Your task to perform on an android device: snooze an email in the gmail app Image 0: 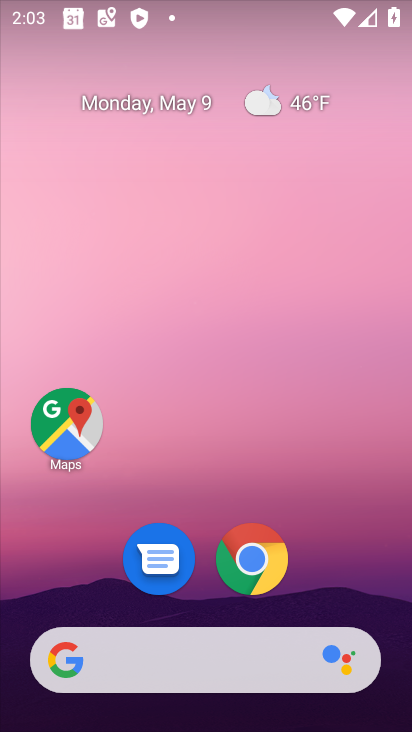
Step 0: drag from (384, 582) to (339, 179)
Your task to perform on an android device: snooze an email in the gmail app Image 1: 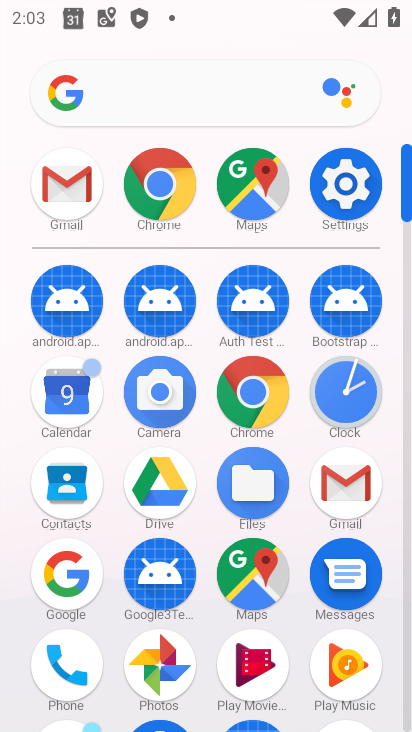
Step 1: click (363, 478)
Your task to perform on an android device: snooze an email in the gmail app Image 2: 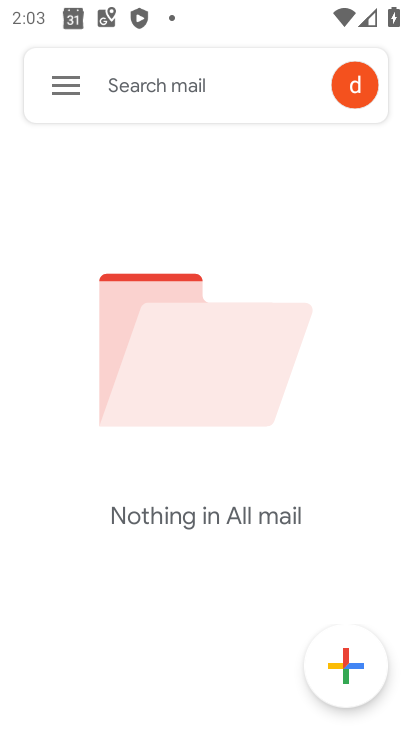
Step 2: click (72, 88)
Your task to perform on an android device: snooze an email in the gmail app Image 3: 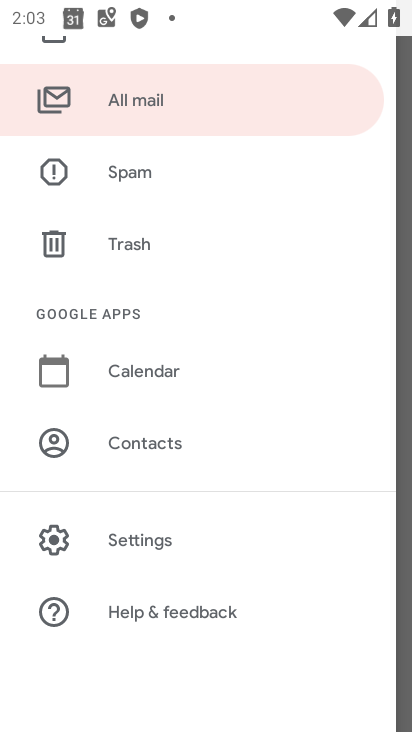
Step 3: click (156, 128)
Your task to perform on an android device: snooze an email in the gmail app Image 4: 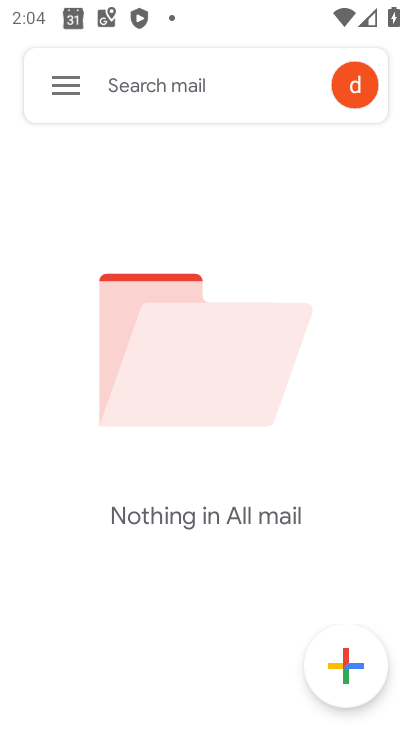
Step 4: task complete